Your task to perform on an android device: open sync settings in chrome Image 0: 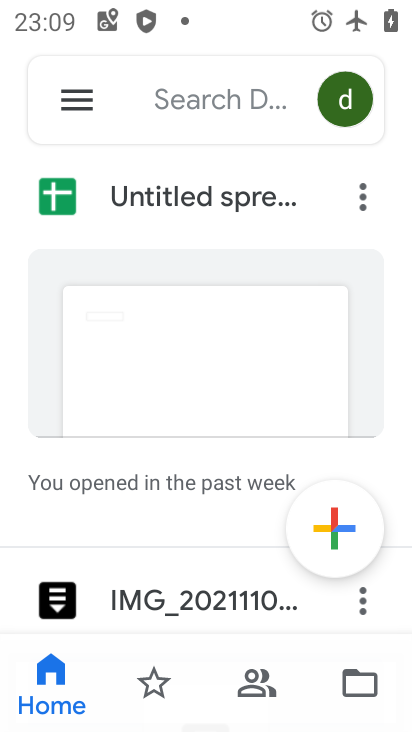
Step 0: press home button
Your task to perform on an android device: open sync settings in chrome Image 1: 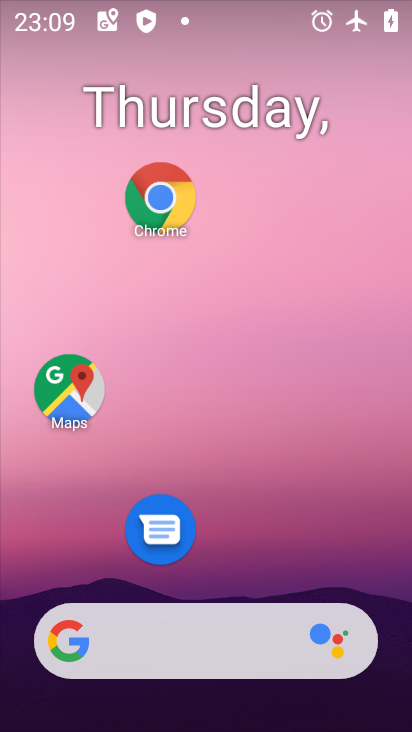
Step 1: drag from (277, 563) to (214, 213)
Your task to perform on an android device: open sync settings in chrome Image 2: 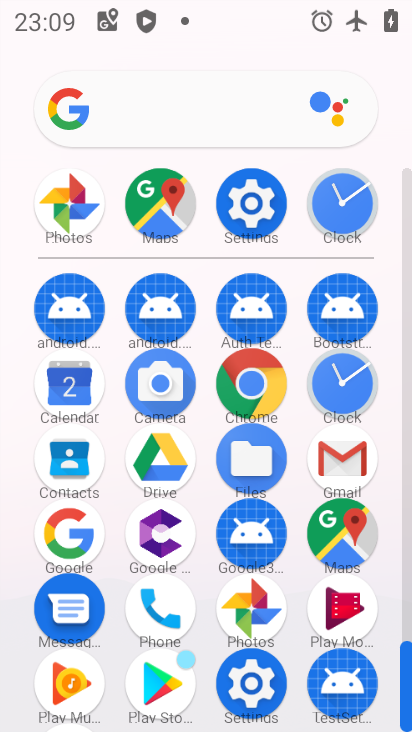
Step 2: click (266, 368)
Your task to perform on an android device: open sync settings in chrome Image 3: 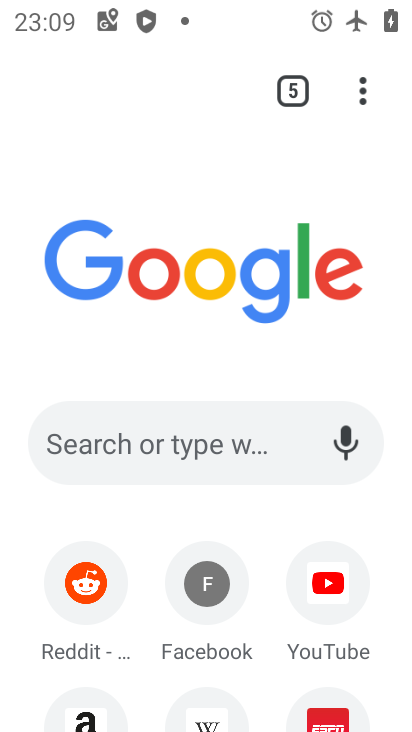
Step 3: click (364, 91)
Your task to perform on an android device: open sync settings in chrome Image 4: 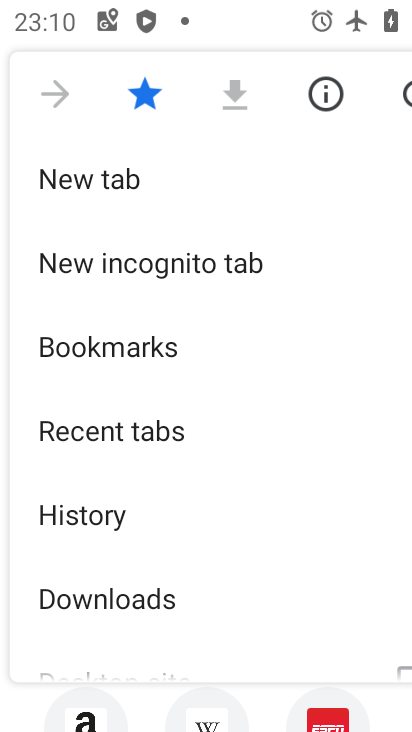
Step 4: drag from (323, 687) to (224, 362)
Your task to perform on an android device: open sync settings in chrome Image 5: 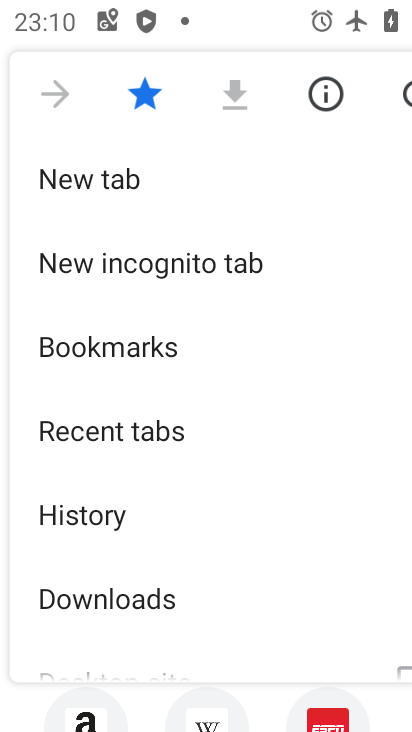
Step 5: drag from (224, 450) to (224, 242)
Your task to perform on an android device: open sync settings in chrome Image 6: 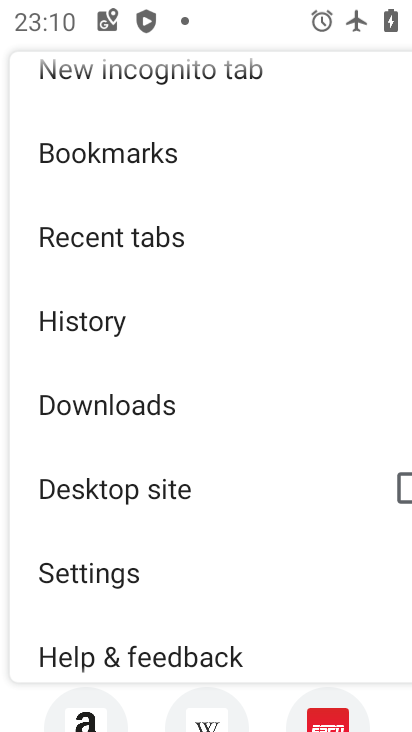
Step 6: click (119, 563)
Your task to perform on an android device: open sync settings in chrome Image 7: 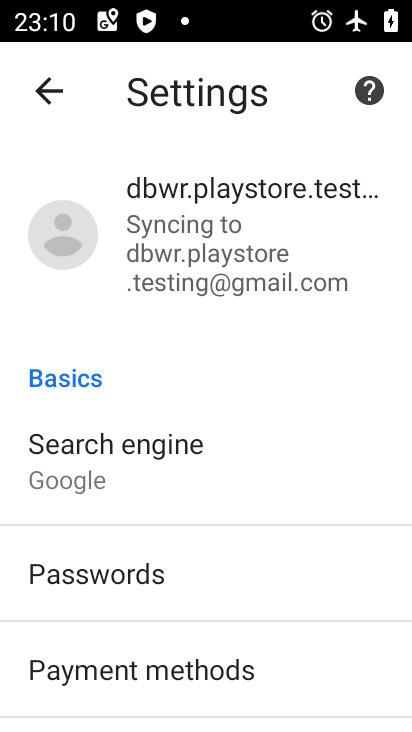
Step 7: click (192, 188)
Your task to perform on an android device: open sync settings in chrome Image 8: 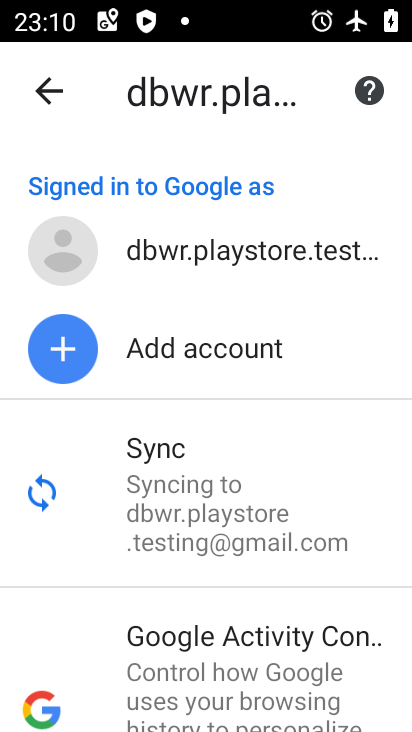
Step 8: click (167, 487)
Your task to perform on an android device: open sync settings in chrome Image 9: 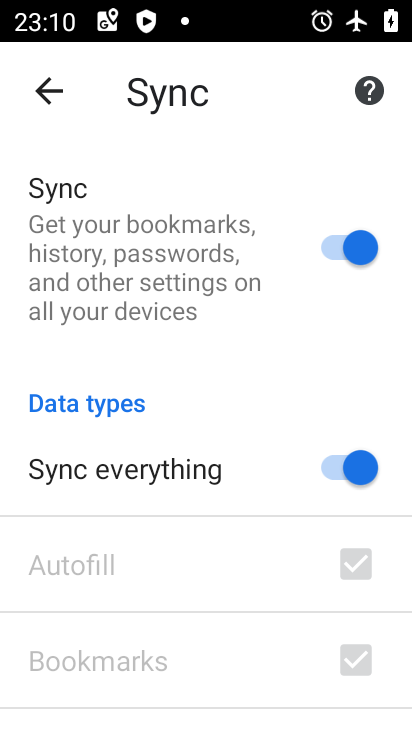
Step 9: task complete